Your task to perform on an android device: toggle priority inbox in the gmail app Image 0: 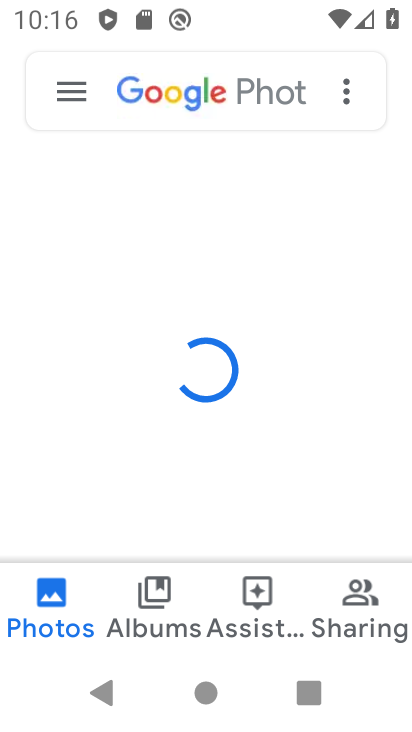
Step 0: press back button
Your task to perform on an android device: toggle priority inbox in the gmail app Image 1: 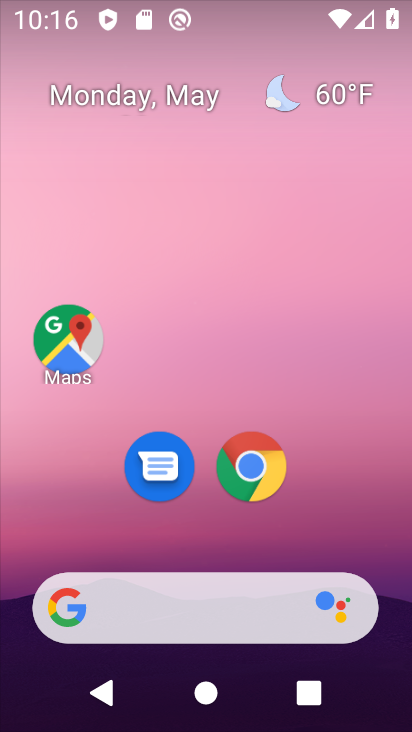
Step 1: drag from (236, 654) to (393, 348)
Your task to perform on an android device: toggle priority inbox in the gmail app Image 2: 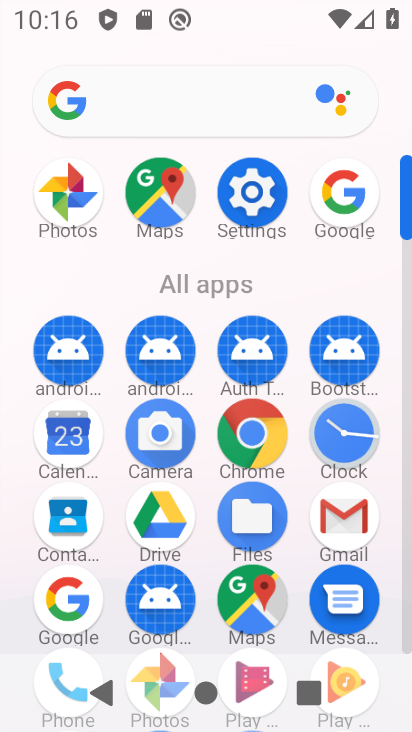
Step 2: click (331, 511)
Your task to perform on an android device: toggle priority inbox in the gmail app Image 3: 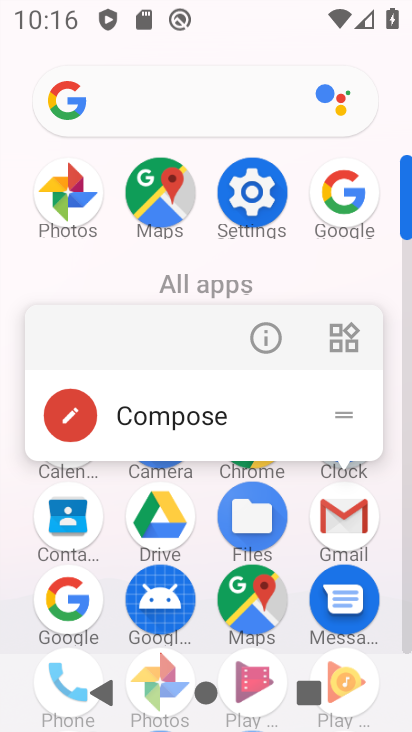
Step 3: click (332, 519)
Your task to perform on an android device: toggle priority inbox in the gmail app Image 4: 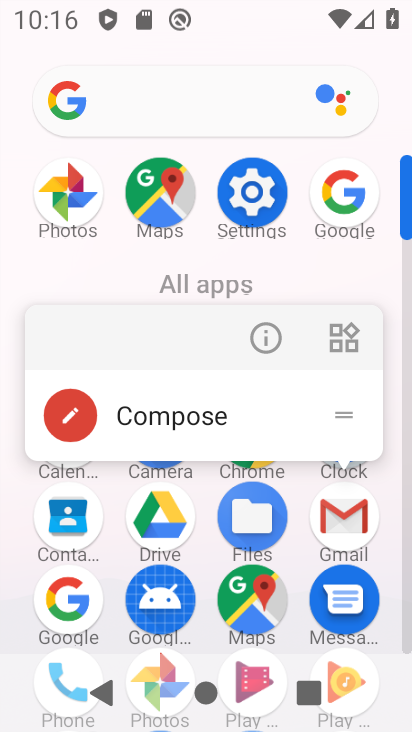
Step 4: click (355, 499)
Your task to perform on an android device: toggle priority inbox in the gmail app Image 5: 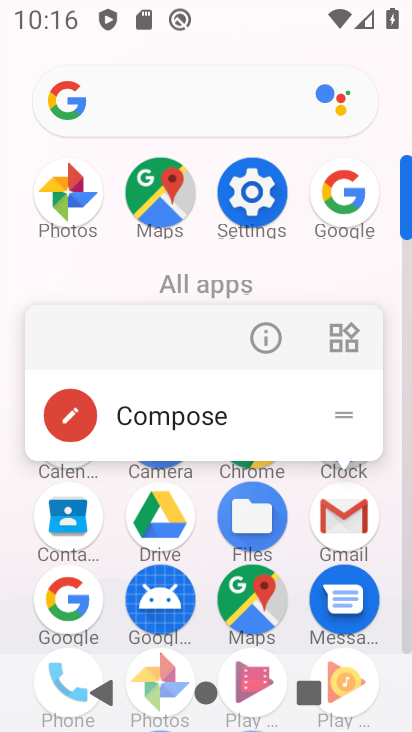
Step 5: click (340, 511)
Your task to perform on an android device: toggle priority inbox in the gmail app Image 6: 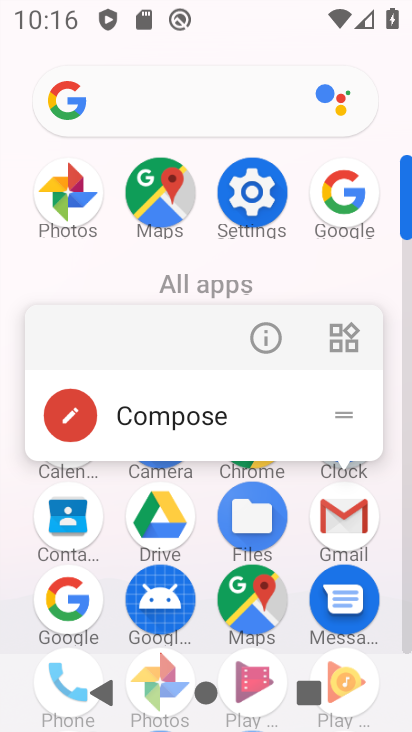
Step 6: click (340, 512)
Your task to perform on an android device: toggle priority inbox in the gmail app Image 7: 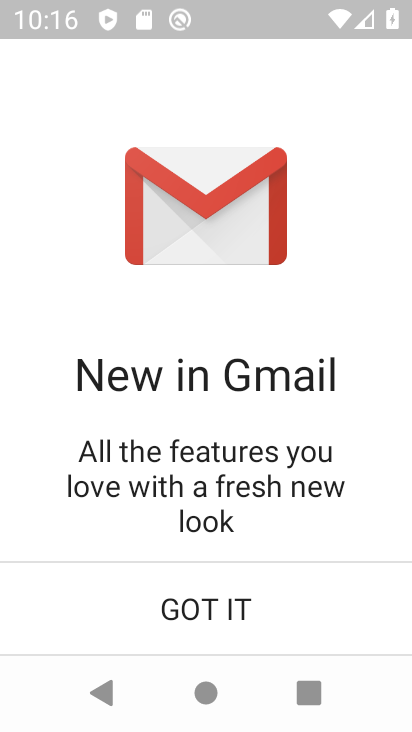
Step 7: click (209, 603)
Your task to perform on an android device: toggle priority inbox in the gmail app Image 8: 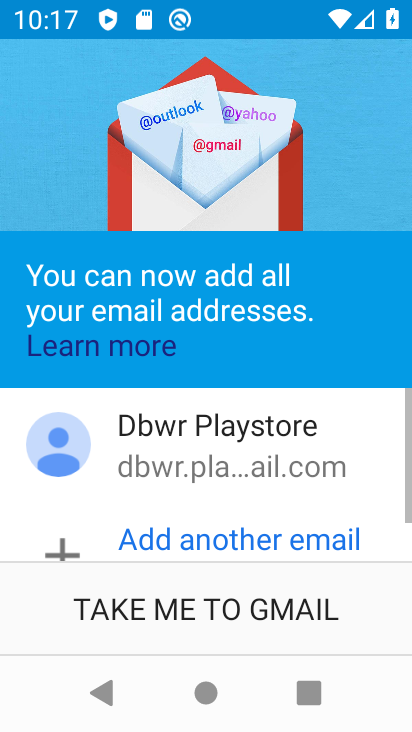
Step 8: click (203, 597)
Your task to perform on an android device: toggle priority inbox in the gmail app Image 9: 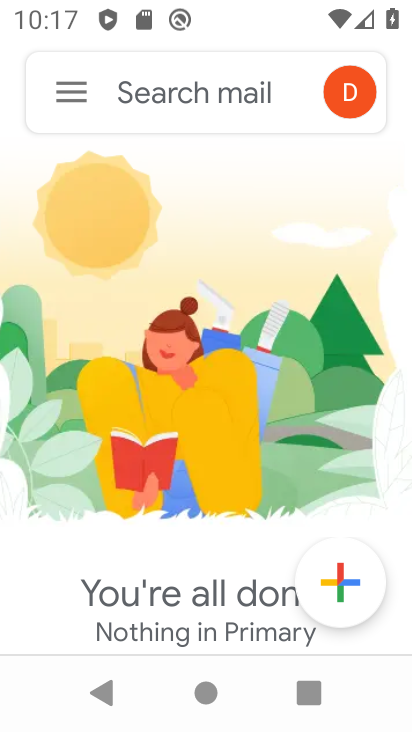
Step 9: click (79, 82)
Your task to perform on an android device: toggle priority inbox in the gmail app Image 10: 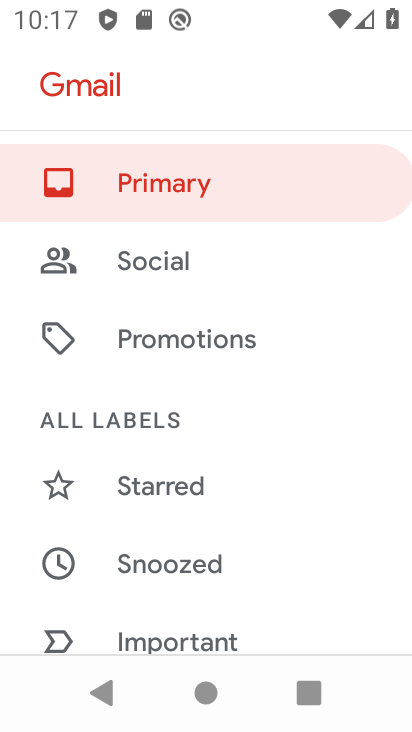
Step 10: drag from (190, 501) to (178, 61)
Your task to perform on an android device: toggle priority inbox in the gmail app Image 11: 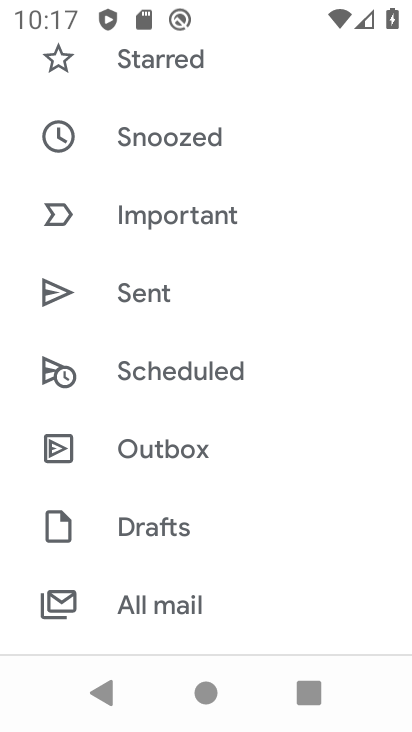
Step 11: click (237, 67)
Your task to perform on an android device: toggle priority inbox in the gmail app Image 12: 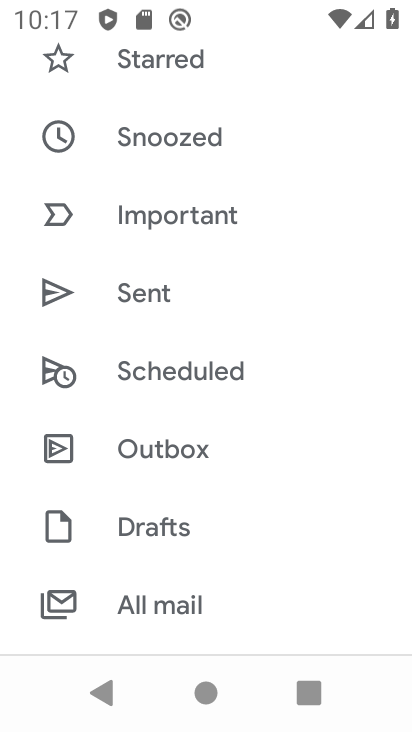
Step 12: drag from (216, 505) to (194, 123)
Your task to perform on an android device: toggle priority inbox in the gmail app Image 13: 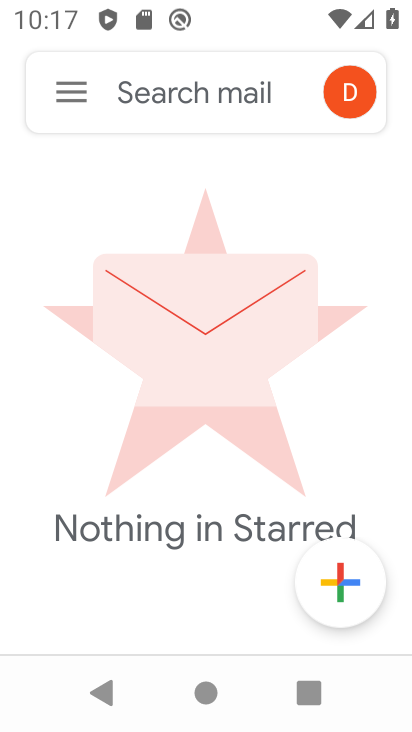
Step 13: click (53, 98)
Your task to perform on an android device: toggle priority inbox in the gmail app Image 14: 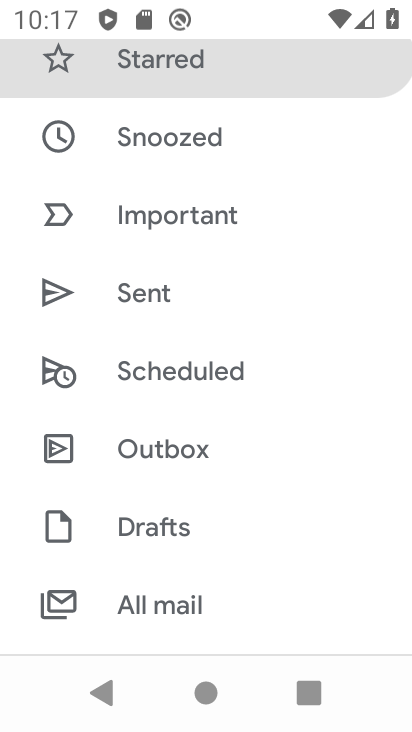
Step 14: drag from (198, 395) to (195, 232)
Your task to perform on an android device: toggle priority inbox in the gmail app Image 15: 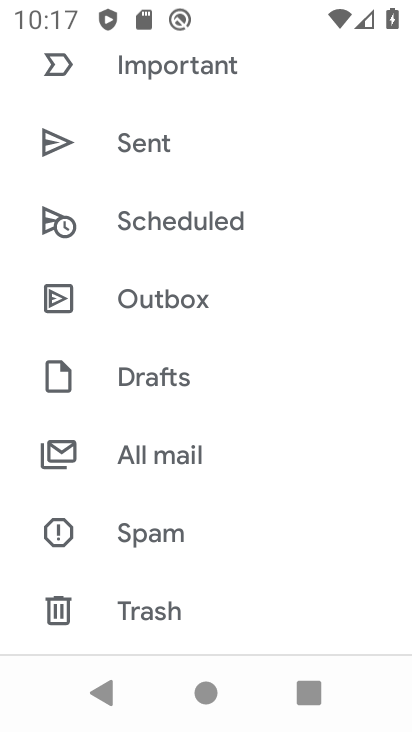
Step 15: drag from (193, 521) to (184, 183)
Your task to perform on an android device: toggle priority inbox in the gmail app Image 16: 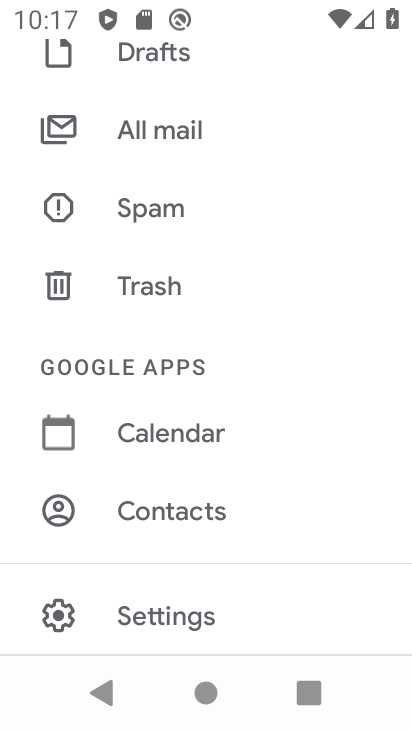
Step 16: drag from (173, 482) to (170, 38)
Your task to perform on an android device: toggle priority inbox in the gmail app Image 17: 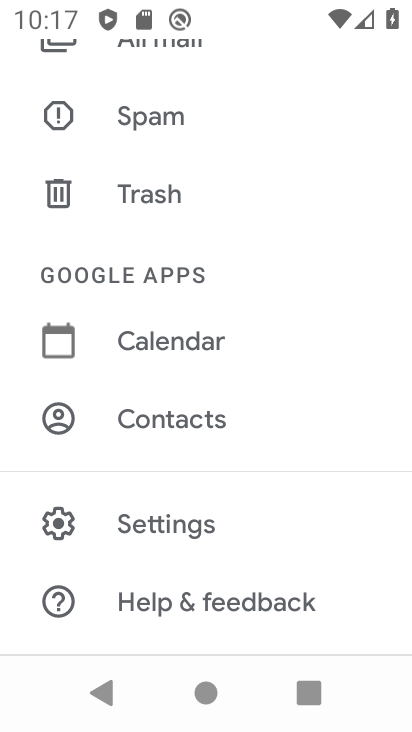
Step 17: click (176, 529)
Your task to perform on an android device: toggle priority inbox in the gmail app Image 18: 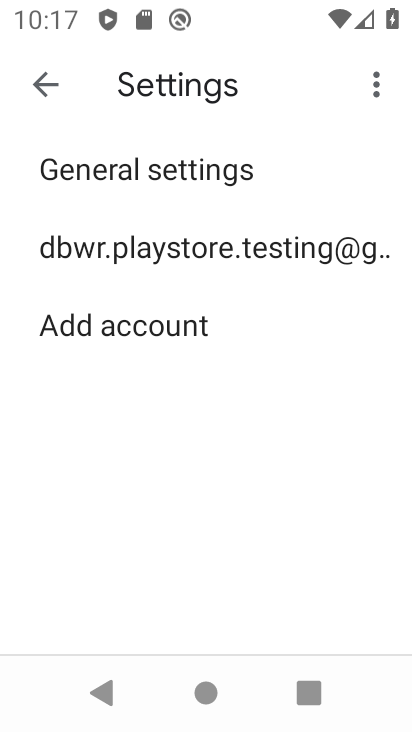
Step 18: click (162, 246)
Your task to perform on an android device: toggle priority inbox in the gmail app Image 19: 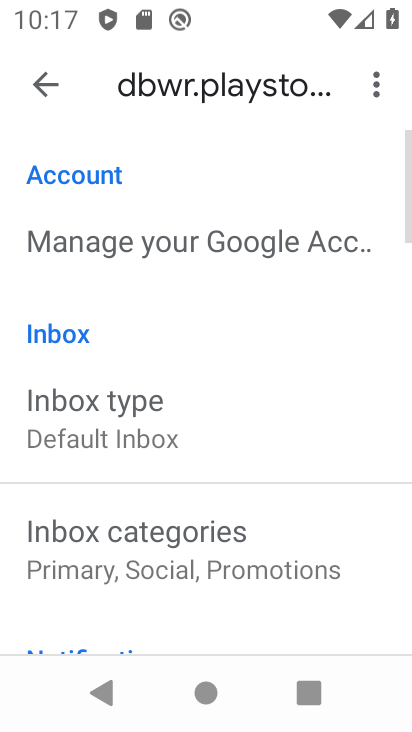
Step 19: drag from (181, 522) to (149, 117)
Your task to perform on an android device: toggle priority inbox in the gmail app Image 20: 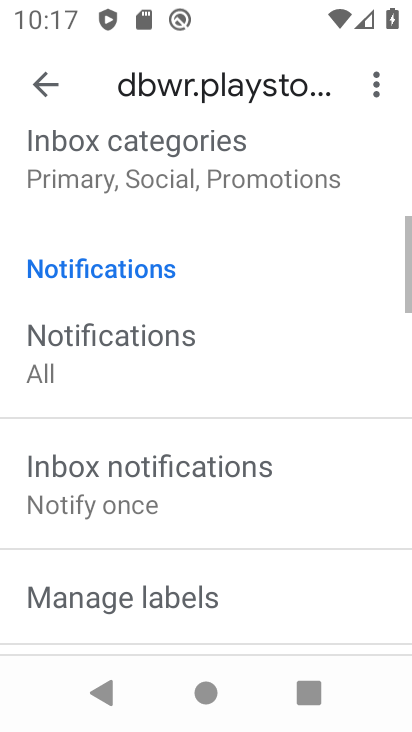
Step 20: drag from (219, 382) to (184, 136)
Your task to perform on an android device: toggle priority inbox in the gmail app Image 21: 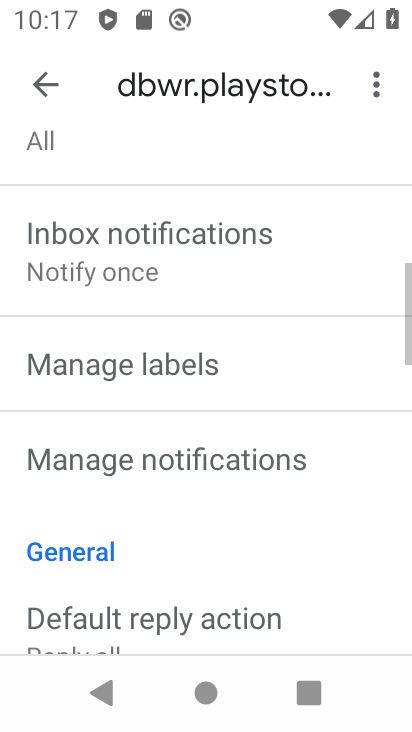
Step 21: drag from (318, 522) to (227, 66)
Your task to perform on an android device: toggle priority inbox in the gmail app Image 22: 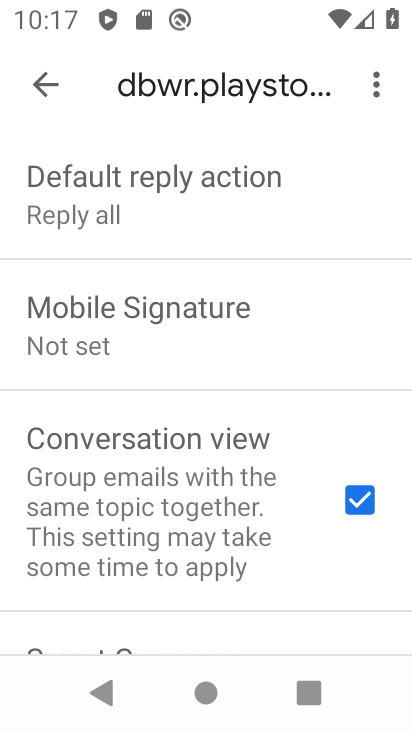
Step 22: drag from (155, 496) to (148, 32)
Your task to perform on an android device: toggle priority inbox in the gmail app Image 23: 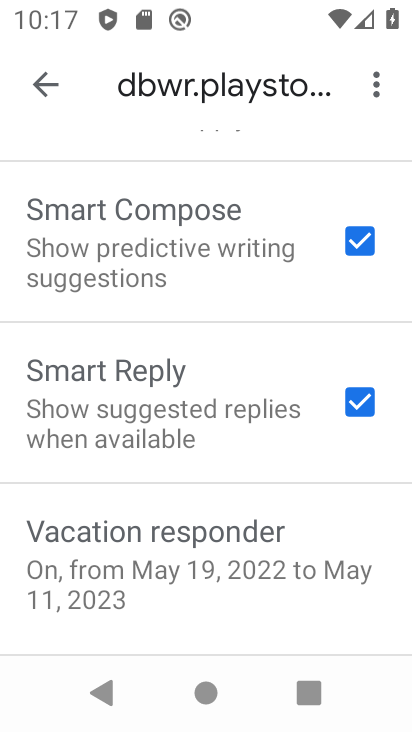
Step 23: drag from (184, 284) to (225, 689)
Your task to perform on an android device: toggle priority inbox in the gmail app Image 24: 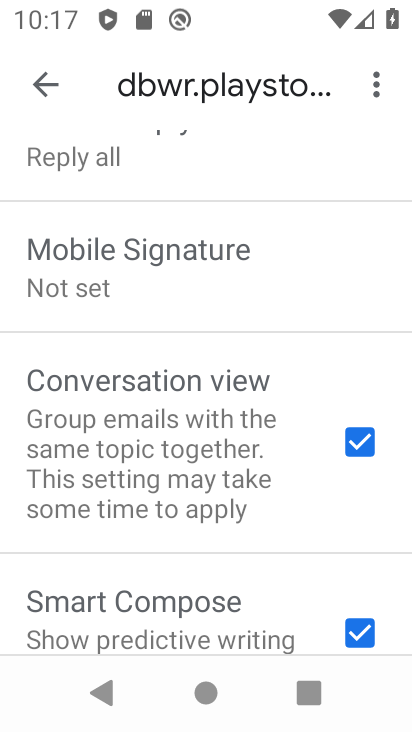
Step 24: drag from (167, 294) to (176, 616)
Your task to perform on an android device: toggle priority inbox in the gmail app Image 25: 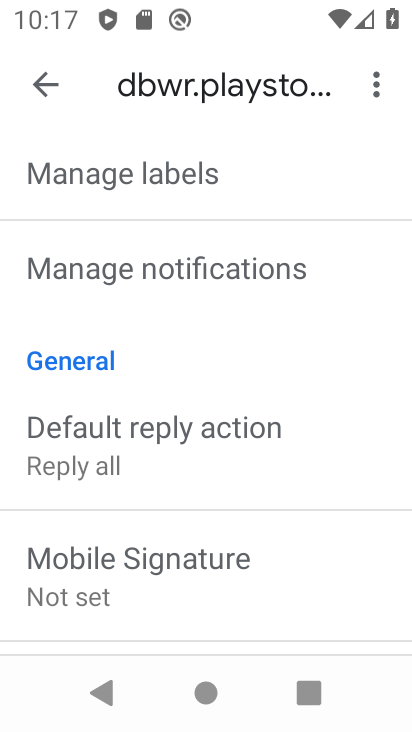
Step 25: drag from (139, 212) to (152, 584)
Your task to perform on an android device: toggle priority inbox in the gmail app Image 26: 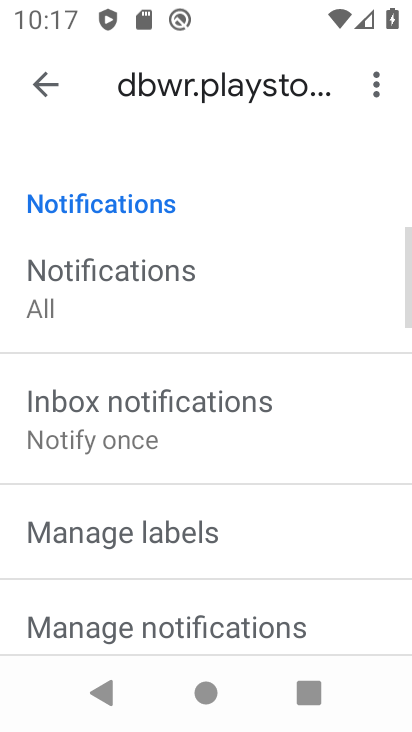
Step 26: drag from (133, 241) to (185, 613)
Your task to perform on an android device: toggle priority inbox in the gmail app Image 27: 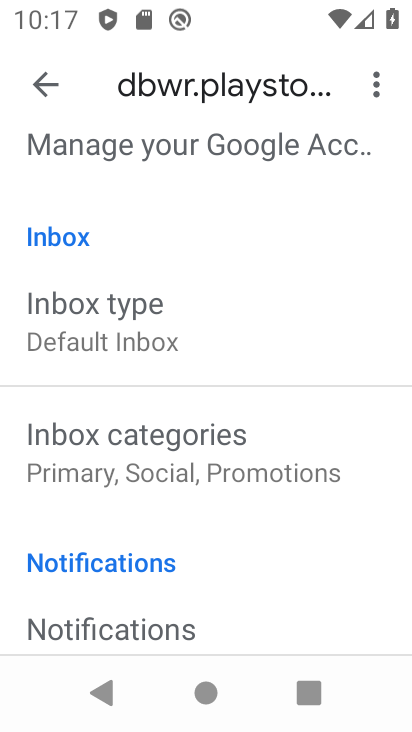
Step 27: click (122, 333)
Your task to perform on an android device: toggle priority inbox in the gmail app Image 28: 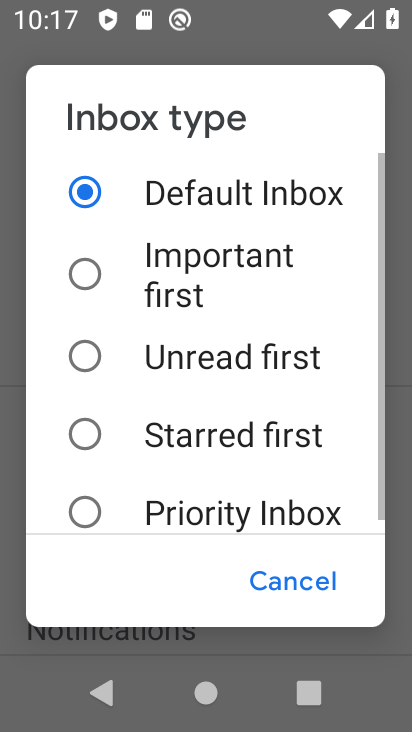
Step 28: click (84, 510)
Your task to perform on an android device: toggle priority inbox in the gmail app Image 29: 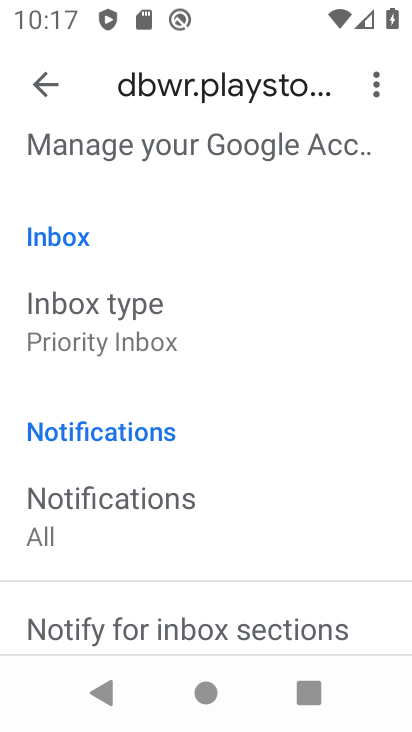
Step 29: task complete